Your task to perform on an android device: open app "DoorDash - Food Delivery" (install if not already installed) and enter user name: "Richard@outlook.com" and password: "informally" Image 0: 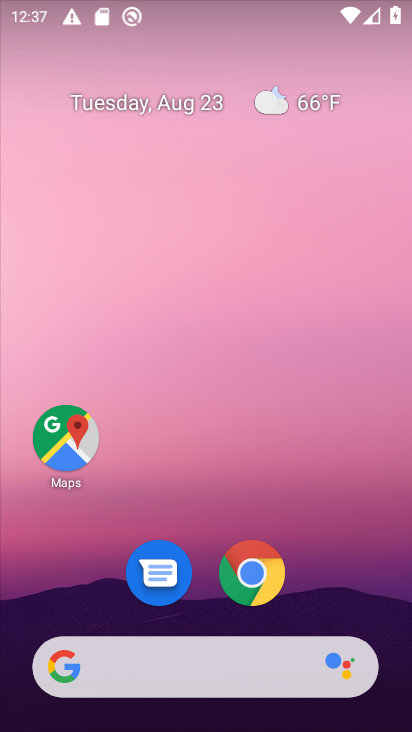
Step 0: drag from (208, 511) to (289, 79)
Your task to perform on an android device: open app "DoorDash - Food Delivery" (install if not already installed) and enter user name: "Richard@outlook.com" and password: "informally" Image 1: 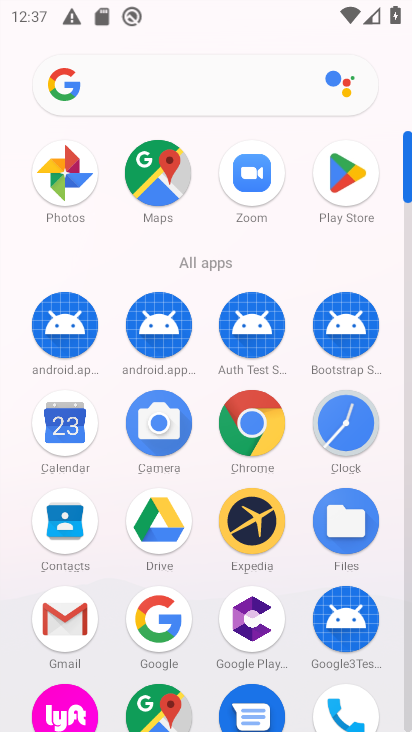
Step 1: click (339, 149)
Your task to perform on an android device: open app "DoorDash - Food Delivery" (install if not already installed) and enter user name: "Richard@outlook.com" and password: "informally" Image 2: 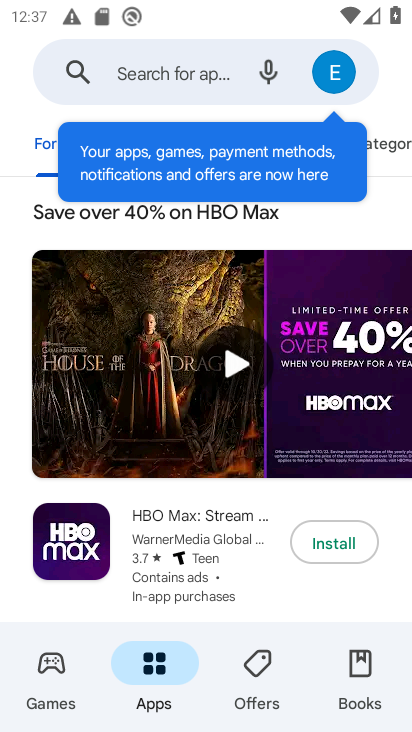
Step 2: click (62, 56)
Your task to perform on an android device: open app "DoorDash - Food Delivery" (install if not already installed) and enter user name: "Richard@outlook.com" and password: "informally" Image 3: 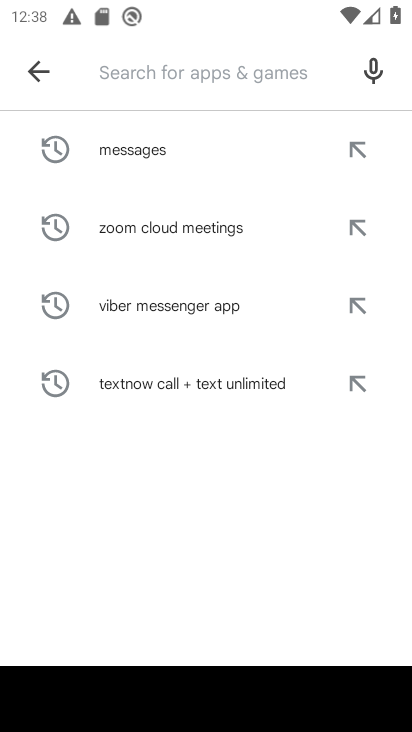
Step 3: type "DoorDash - Food Delivery"
Your task to perform on an android device: open app "DoorDash - Food Delivery" (install if not already installed) and enter user name: "Richard@outlook.com" and password: "informally" Image 4: 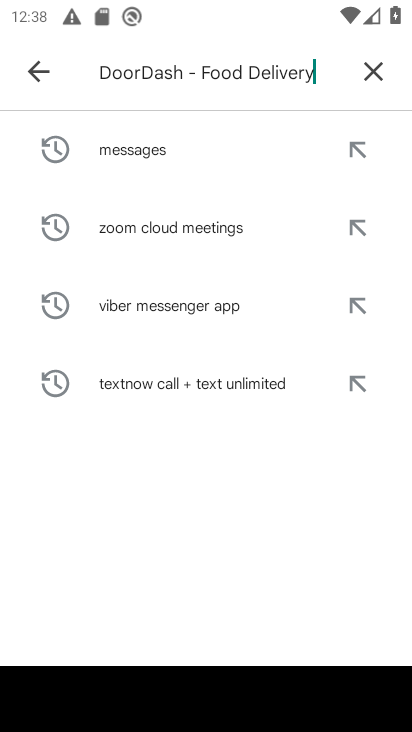
Step 4: type ""
Your task to perform on an android device: open app "DoorDash - Food Delivery" (install if not already installed) and enter user name: "Richard@outlook.com" and password: "informally" Image 5: 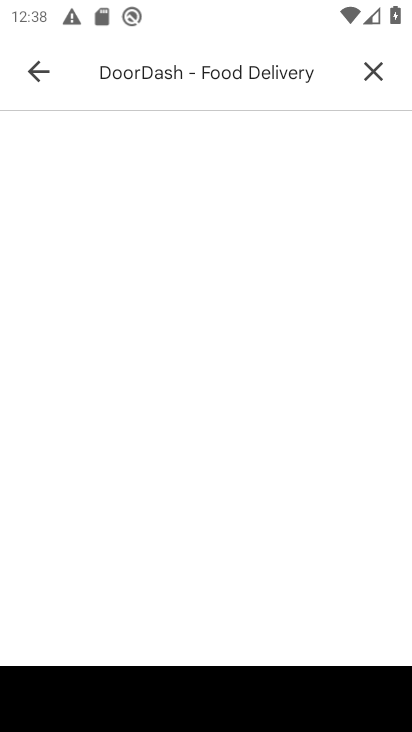
Step 5: task complete